Your task to perform on an android device: Install the Facebook app Image 0: 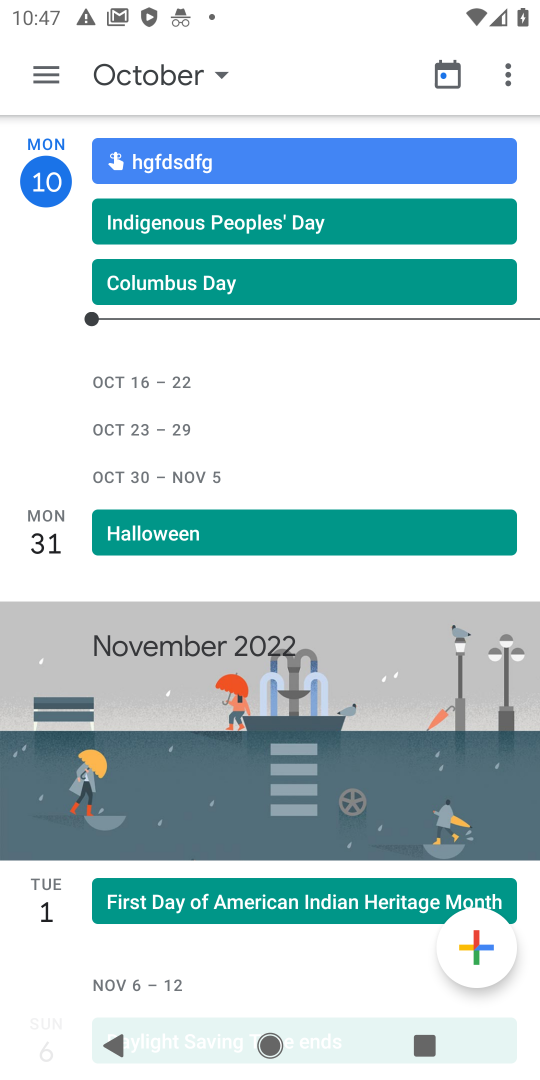
Step 0: press home button
Your task to perform on an android device: Install the Facebook app Image 1: 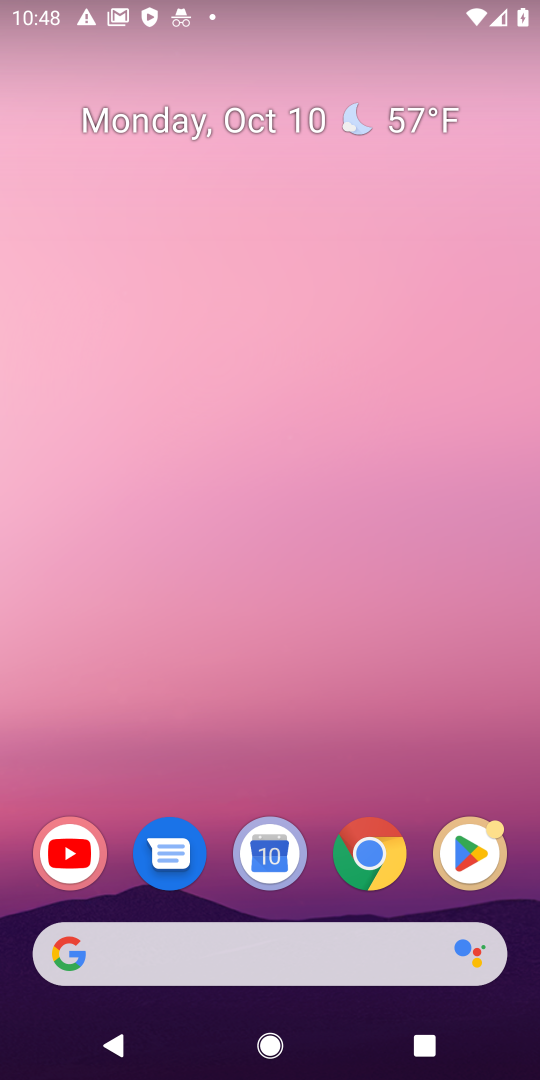
Step 1: drag from (469, 728) to (492, 110)
Your task to perform on an android device: Install the Facebook app Image 2: 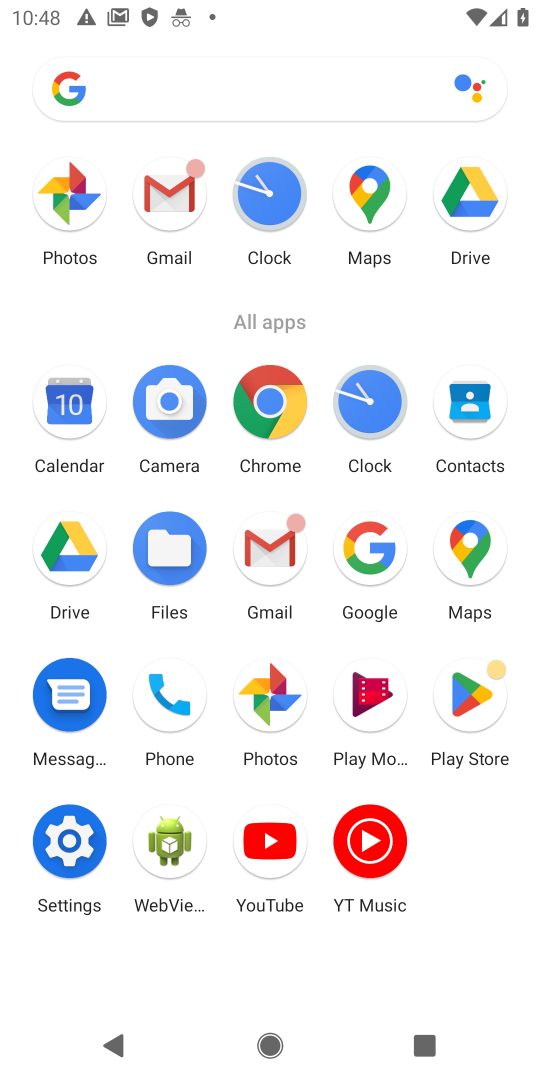
Step 2: click (475, 704)
Your task to perform on an android device: Install the Facebook app Image 3: 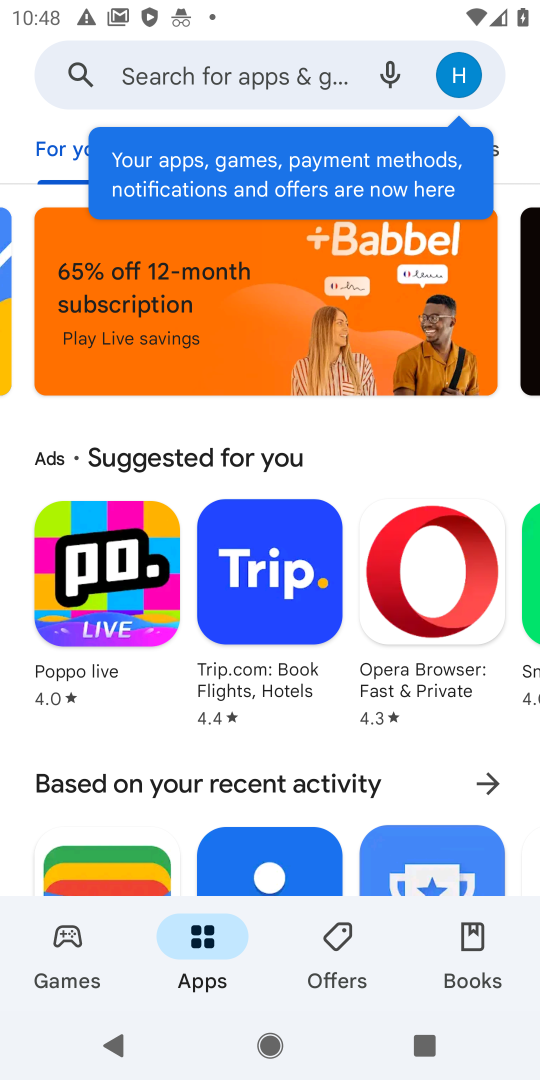
Step 3: click (288, 75)
Your task to perform on an android device: Install the Facebook app Image 4: 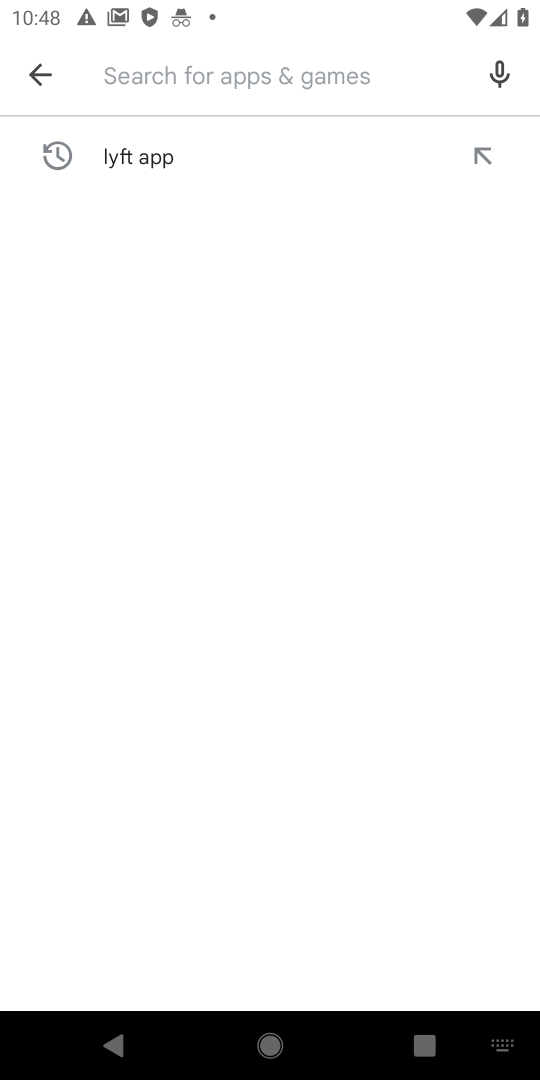
Step 4: type "facebook app"
Your task to perform on an android device: Install the Facebook app Image 5: 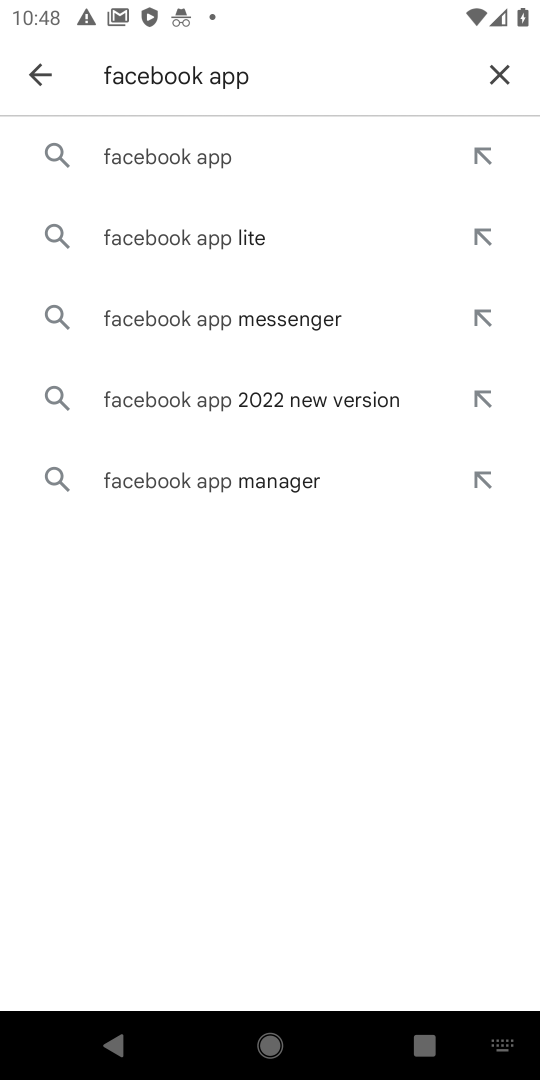
Step 5: click (199, 164)
Your task to perform on an android device: Install the Facebook app Image 6: 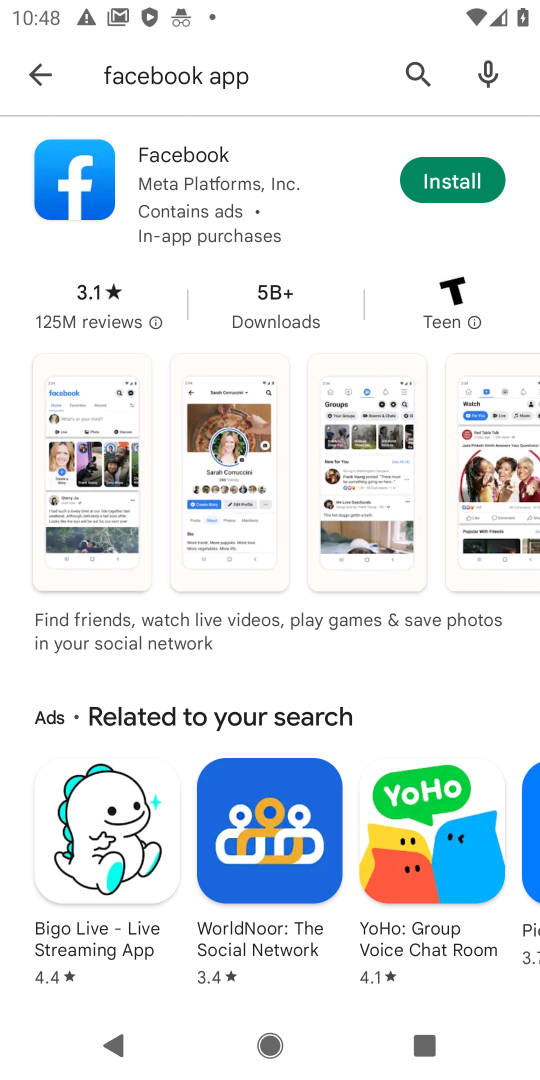
Step 6: click (460, 180)
Your task to perform on an android device: Install the Facebook app Image 7: 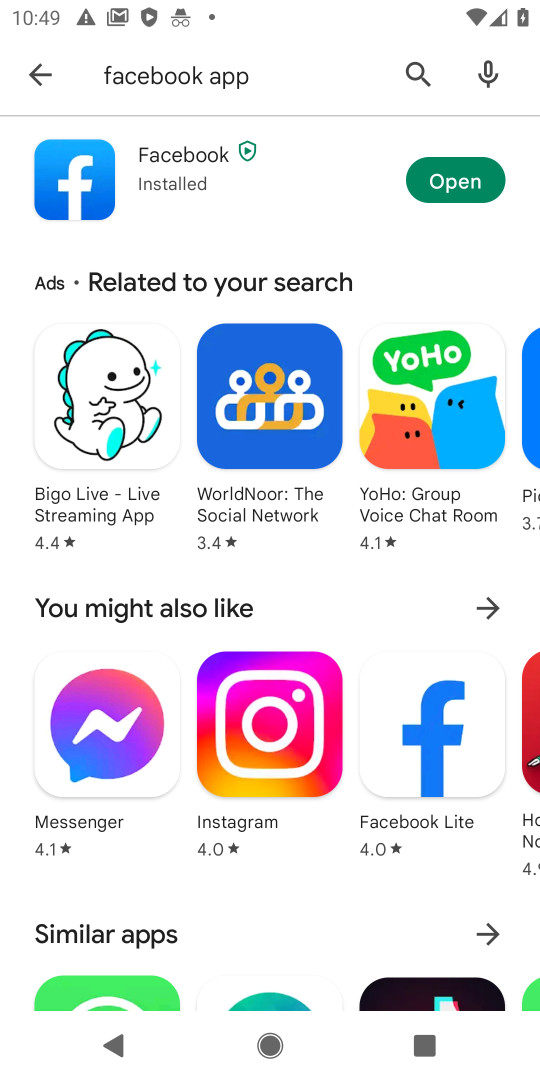
Step 7: task complete